Your task to perform on an android device: See recent photos Image 0: 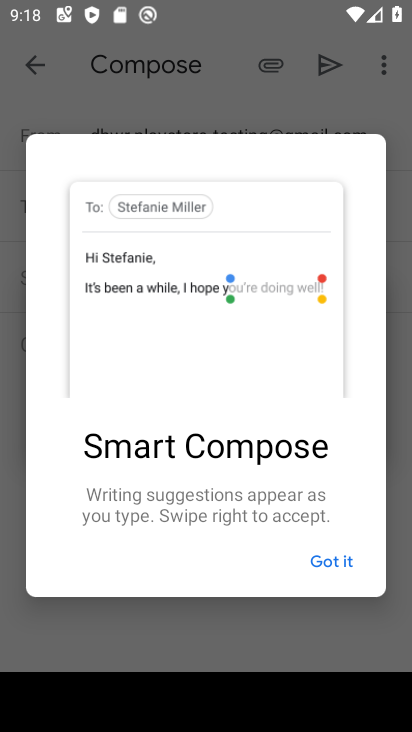
Step 0: press home button
Your task to perform on an android device: See recent photos Image 1: 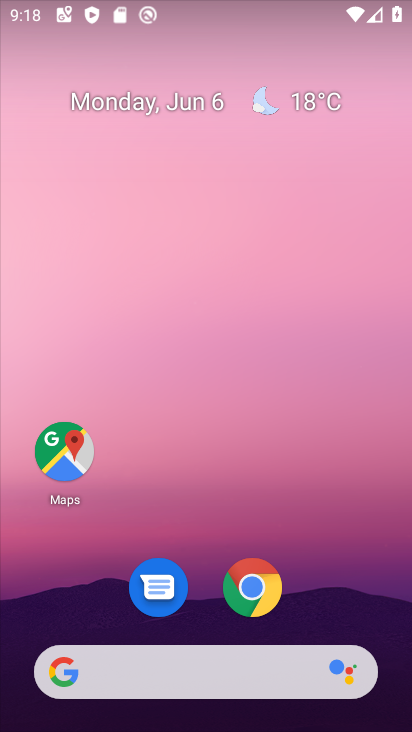
Step 1: drag from (332, 484) to (247, 127)
Your task to perform on an android device: See recent photos Image 2: 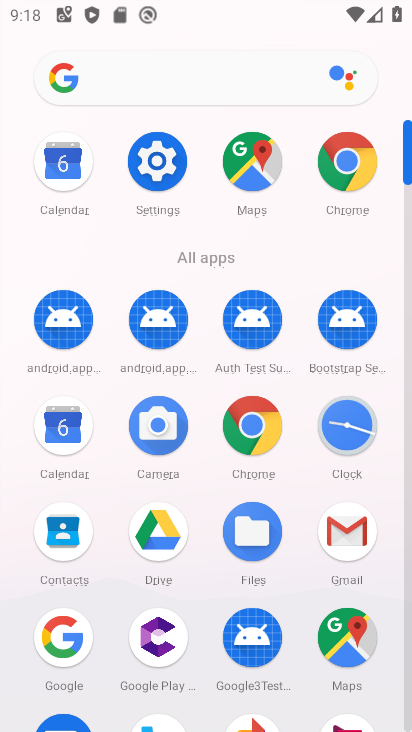
Step 2: drag from (206, 582) to (240, 226)
Your task to perform on an android device: See recent photos Image 3: 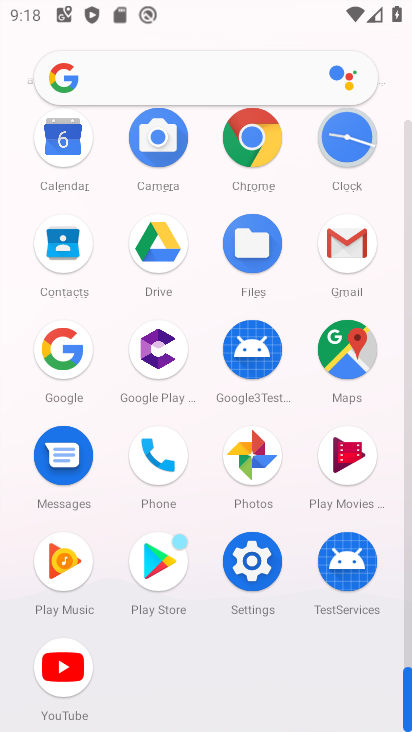
Step 3: click (256, 464)
Your task to perform on an android device: See recent photos Image 4: 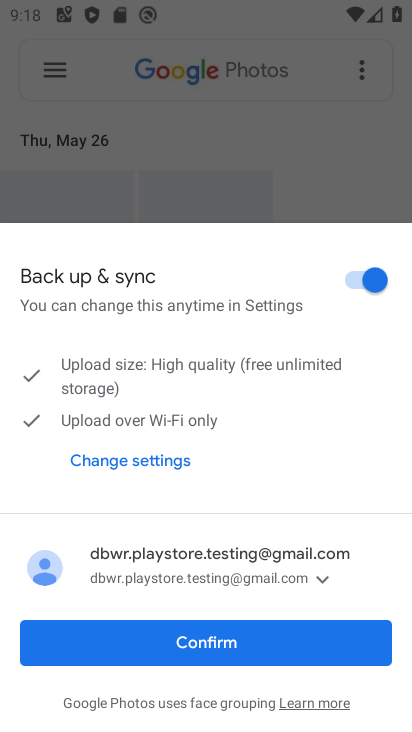
Step 4: click (219, 645)
Your task to perform on an android device: See recent photos Image 5: 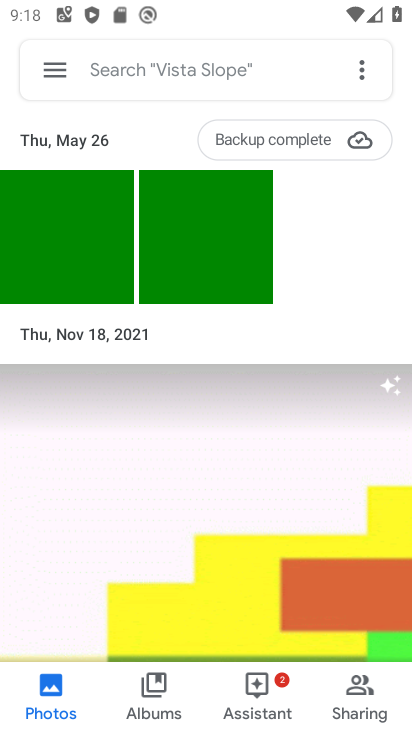
Step 5: task complete